Your task to perform on an android device: Open internet settings Image 0: 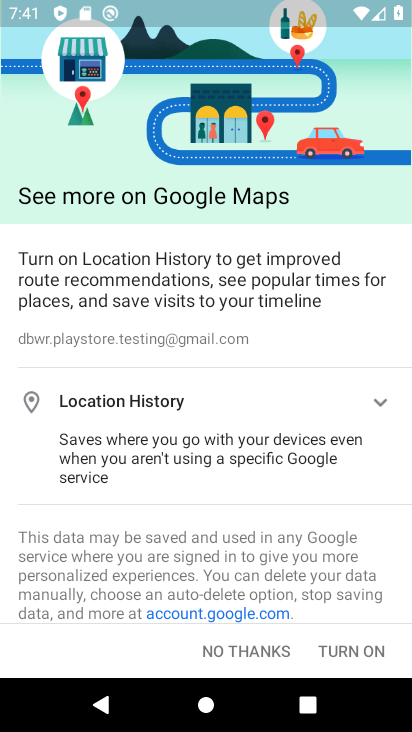
Step 0: press home button
Your task to perform on an android device: Open internet settings Image 1: 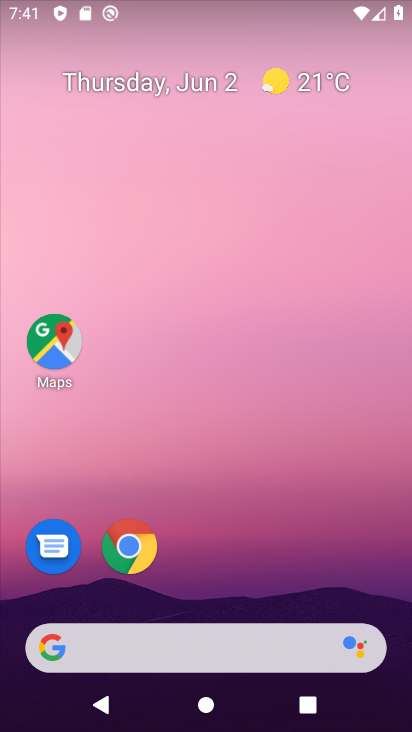
Step 1: drag from (247, 549) to (246, 45)
Your task to perform on an android device: Open internet settings Image 2: 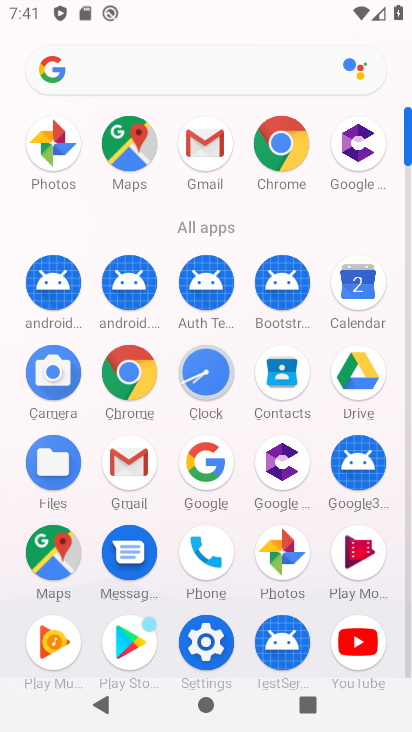
Step 2: click (202, 629)
Your task to perform on an android device: Open internet settings Image 3: 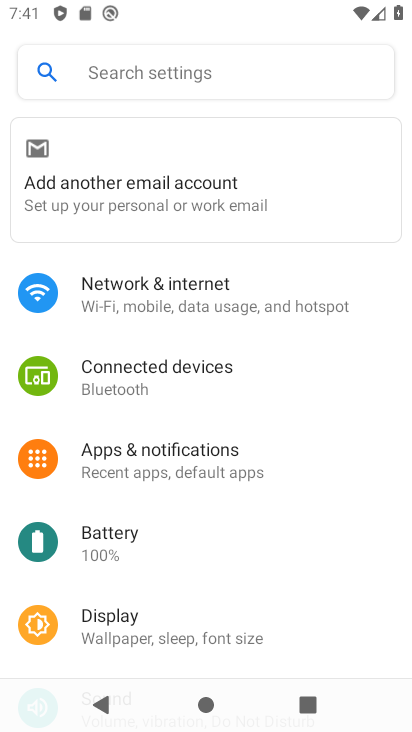
Step 3: task complete